Your task to perform on an android device: Open network settings Image 0: 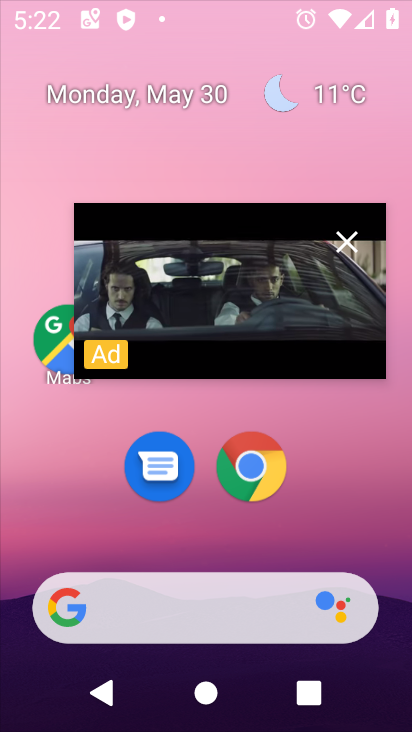
Step 0: press home button
Your task to perform on an android device: Open network settings Image 1: 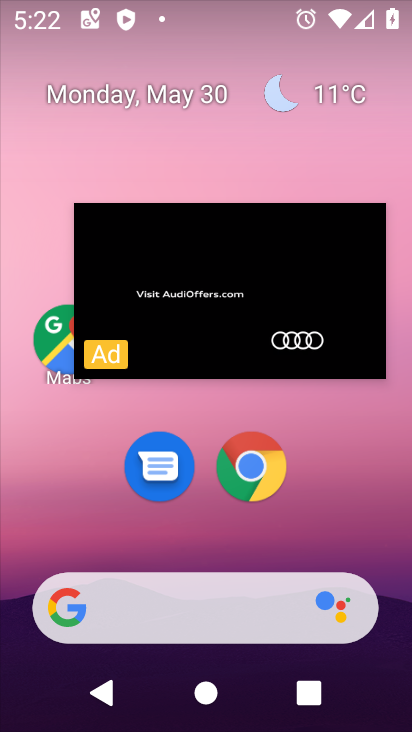
Step 1: click (315, 236)
Your task to perform on an android device: Open network settings Image 2: 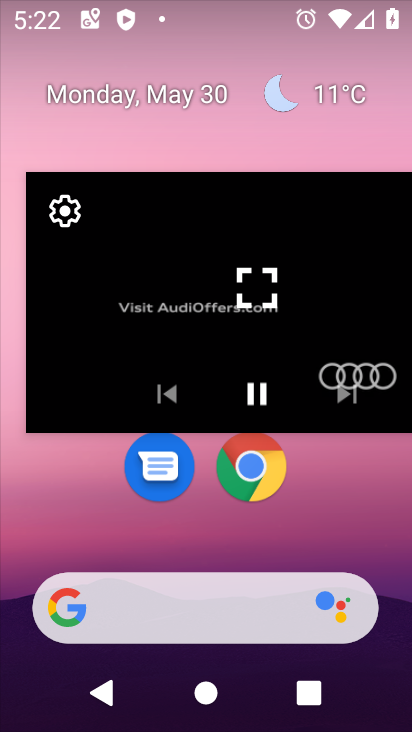
Step 2: drag from (338, 202) to (207, 251)
Your task to perform on an android device: Open network settings Image 3: 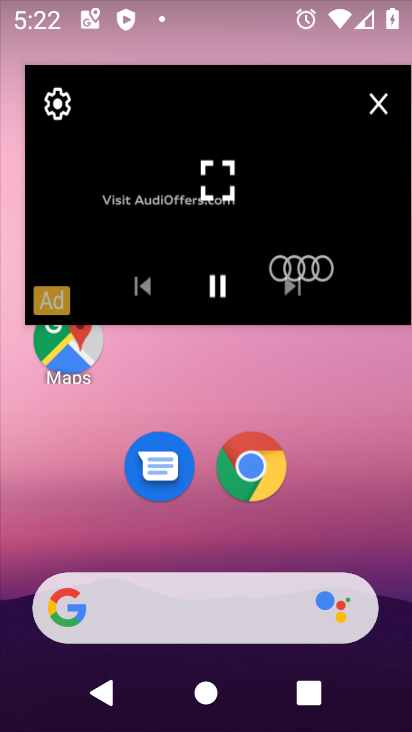
Step 3: click (402, 83)
Your task to perform on an android device: Open network settings Image 4: 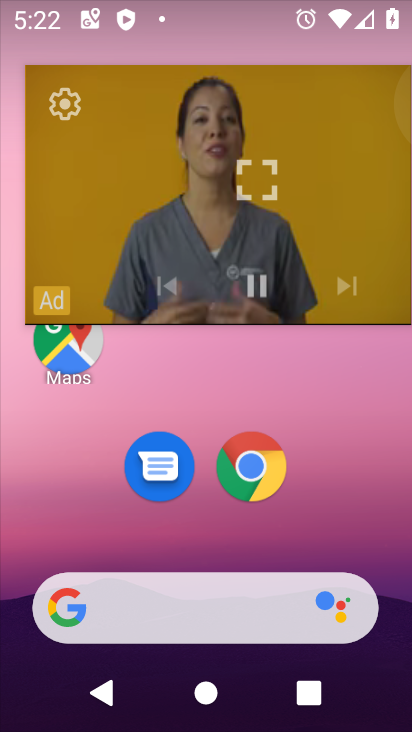
Step 4: click (395, 88)
Your task to perform on an android device: Open network settings Image 5: 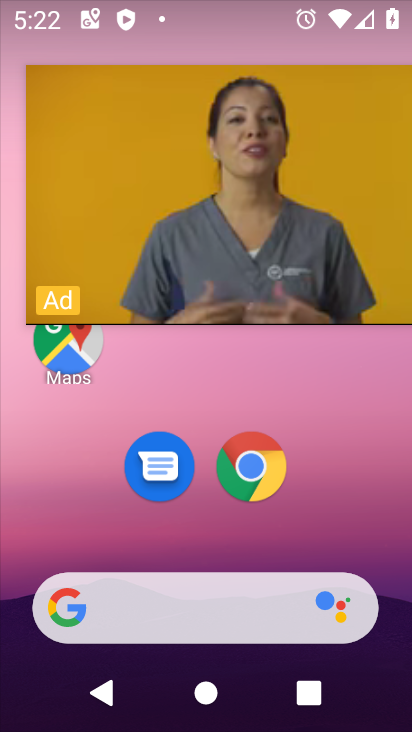
Step 5: click (393, 96)
Your task to perform on an android device: Open network settings Image 6: 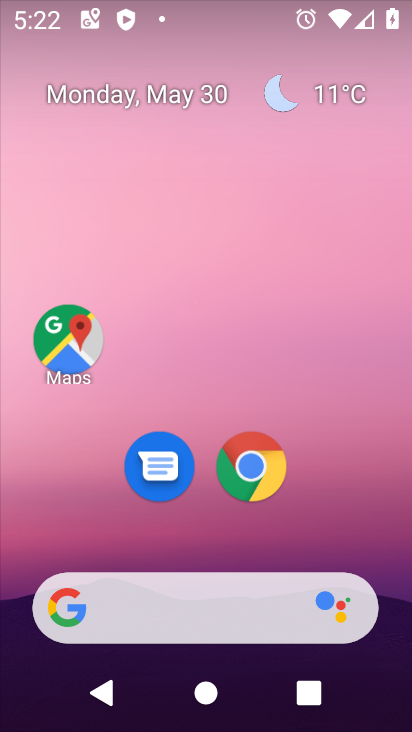
Step 6: drag from (343, 388) to (321, 83)
Your task to perform on an android device: Open network settings Image 7: 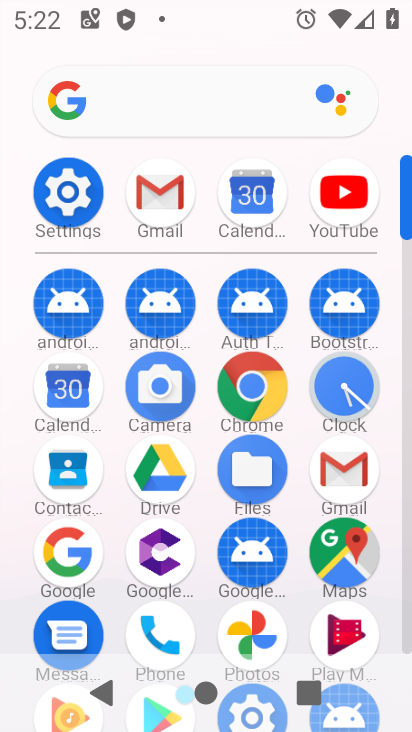
Step 7: click (48, 181)
Your task to perform on an android device: Open network settings Image 8: 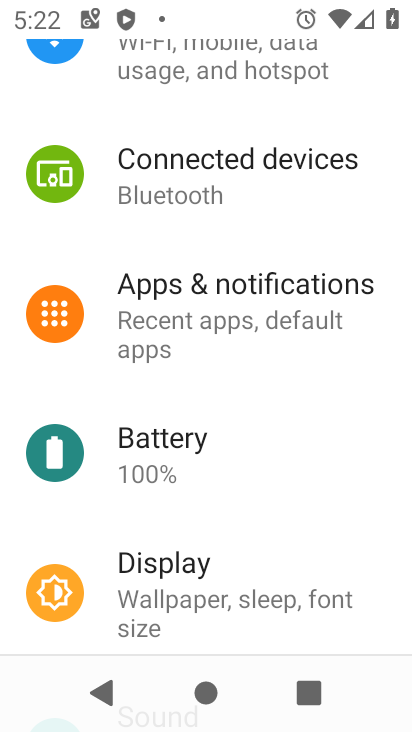
Step 8: drag from (246, 188) to (246, 525)
Your task to perform on an android device: Open network settings Image 9: 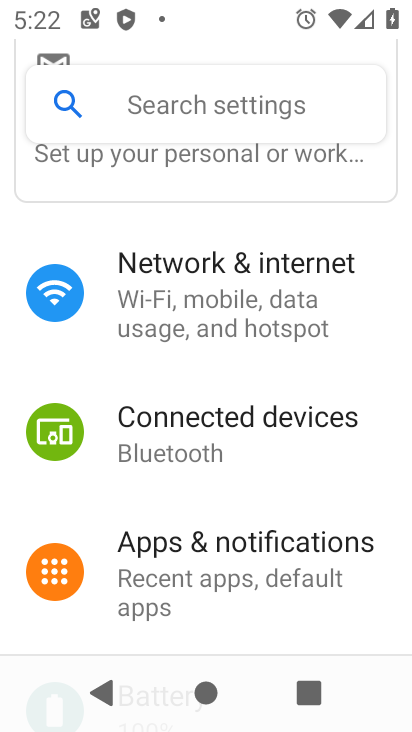
Step 9: click (222, 287)
Your task to perform on an android device: Open network settings Image 10: 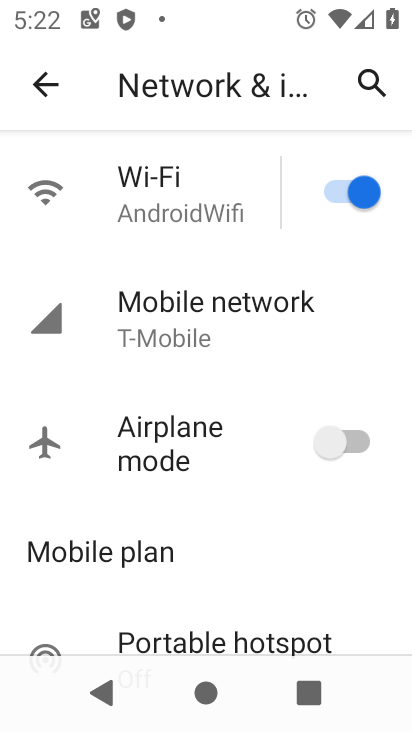
Step 10: task complete